Your task to perform on an android device: Open calendar and show me the third week of next month Image 0: 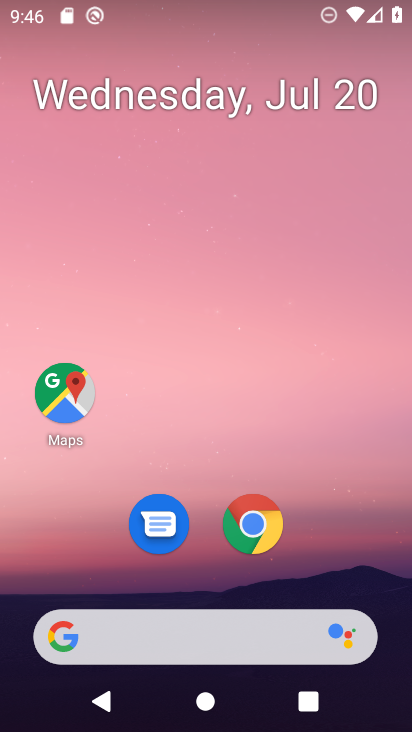
Step 0: press home button
Your task to perform on an android device: Open calendar and show me the third week of next month Image 1: 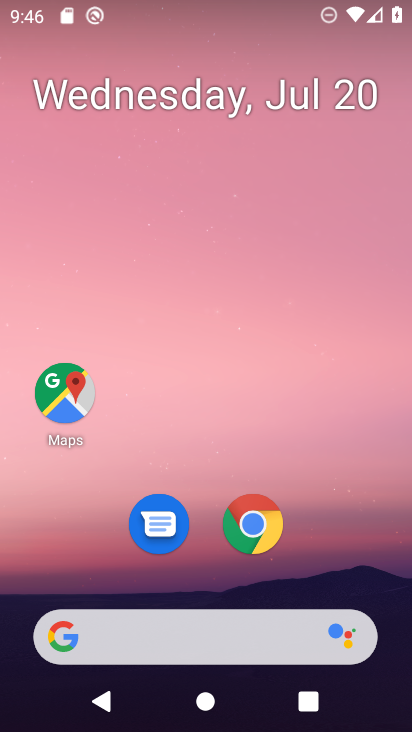
Step 1: drag from (204, 639) to (275, 137)
Your task to perform on an android device: Open calendar and show me the third week of next month Image 2: 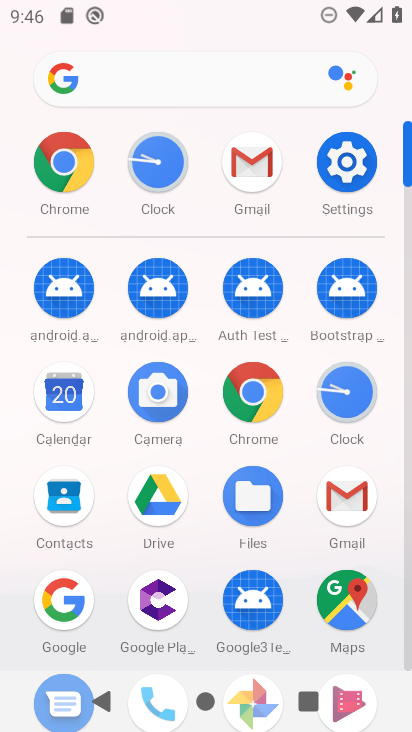
Step 2: click (79, 393)
Your task to perform on an android device: Open calendar and show me the third week of next month Image 3: 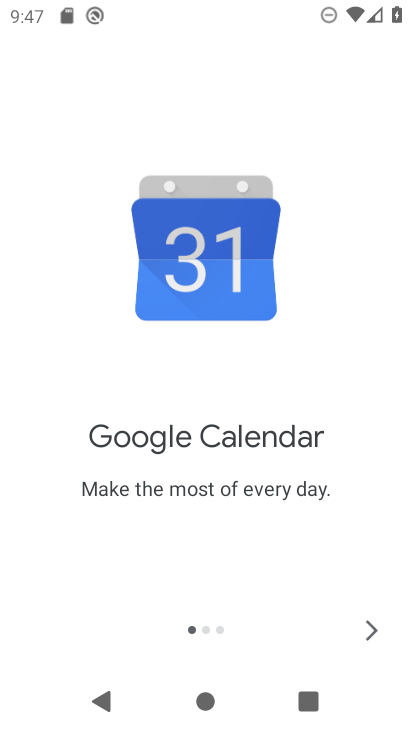
Step 3: click (370, 632)
Your task to perform on an android device: Open calendar and show me the third week of next month Image 4: 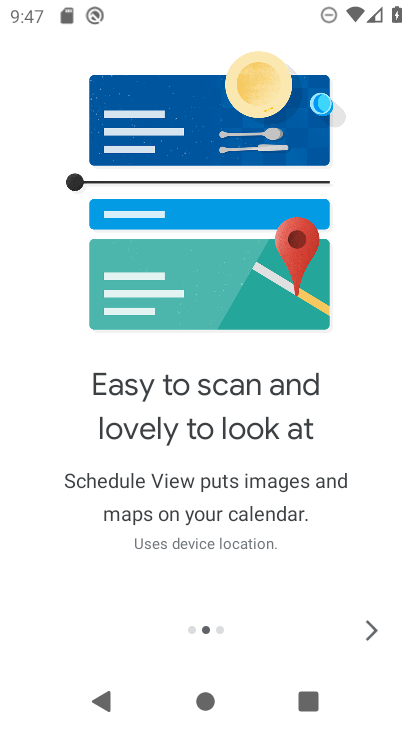
Step 4: click (370, 633)
Your task to perform on an android device: Open calendar and show me the third week of next month Image 5: 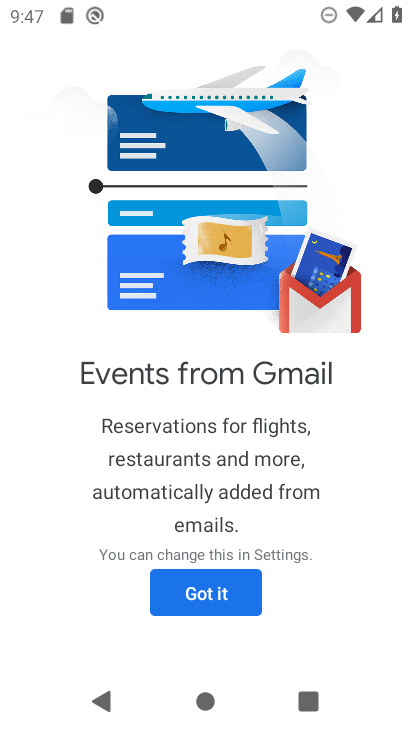
Step 5: click (214, 599)
Your task to perform on an android device: Open calendar and show me the third week of next month Image 6: 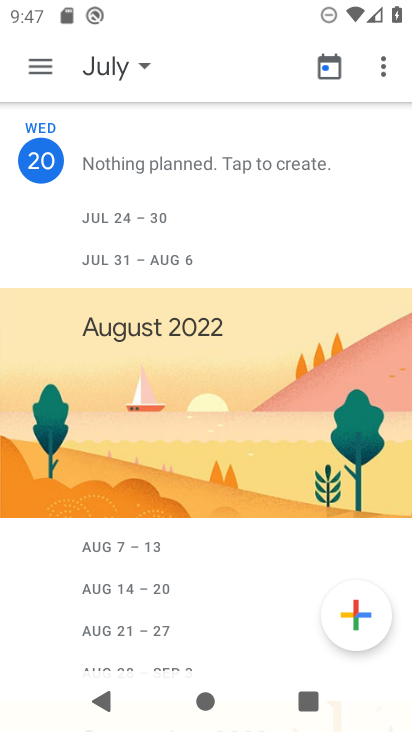
Step 6: click (113, 63)
Your task to perform on an android device: Open calendar and show me the third week of next month Image 7: 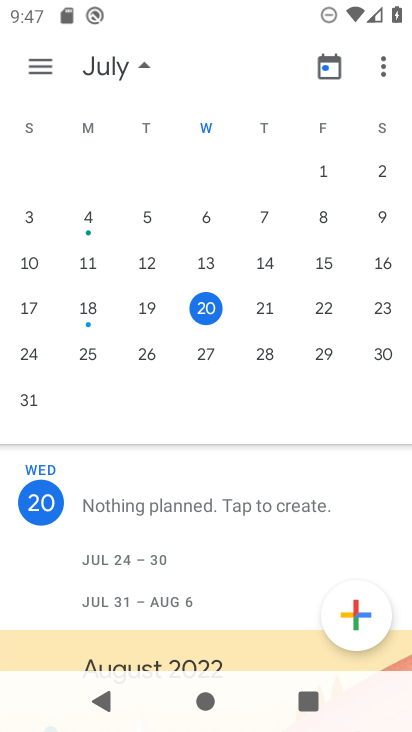
Step 7: drag from (360, 236) to (13, 265)
Your task to perform on an android device: Open calendar and show me the third week of next month Image 8: 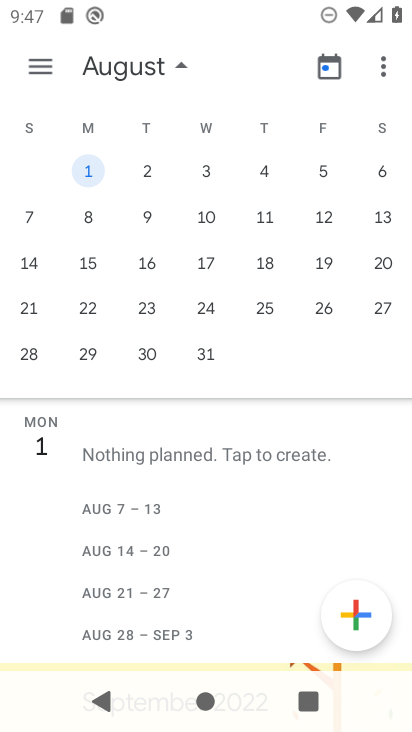
Step 8: click (27, 262)
Your task to perform on an android device: Open calendar and show me the third week of next month Image 9: 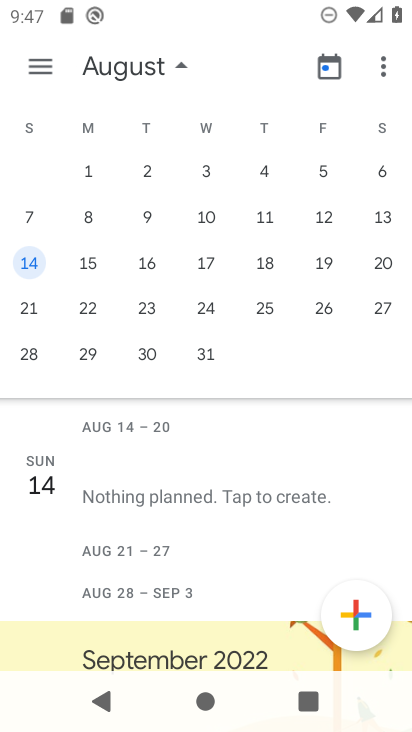
Step 9: click (47, 69)
Your task to perform on an android device: Open calendar and show me the third week of next month Image 10: 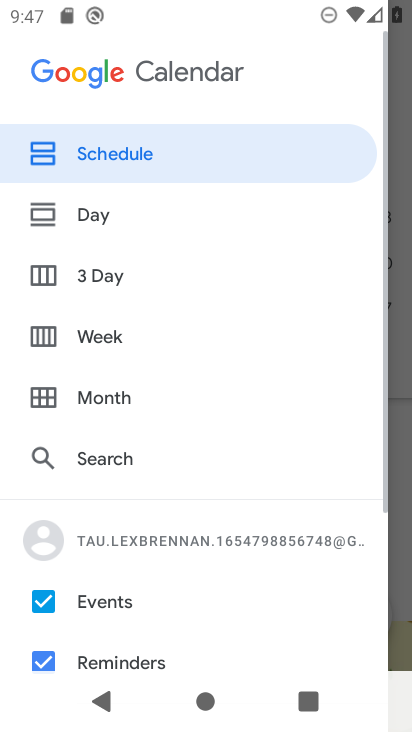
Step 10: click (105, 333)
Your task to perform on an android device: Open calendar and show me the third week of next month Image 11: 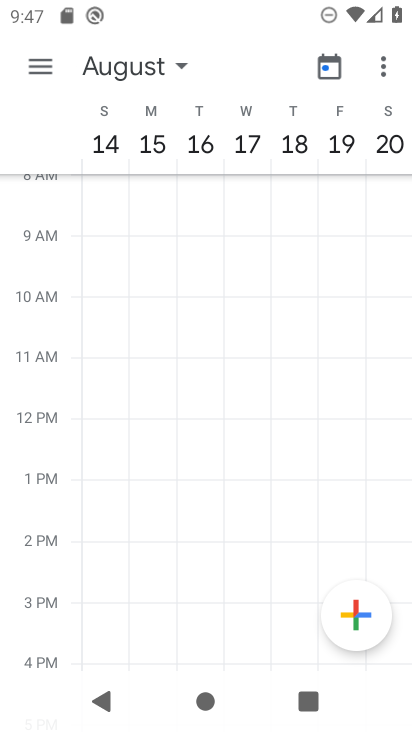
Step 11: task complete